Your task to perform on an android device: change your default location settings in chrome Image 0: 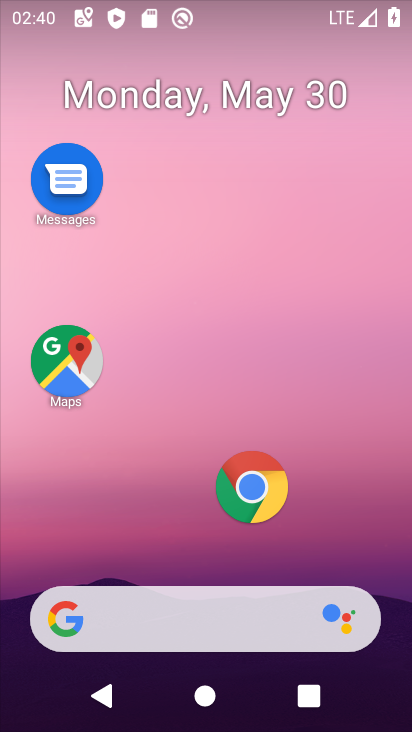
Step 0: drag from (227, 562) to (165, 724)
Your task to perform on an android device: change your default location settings in chrome Image 1: 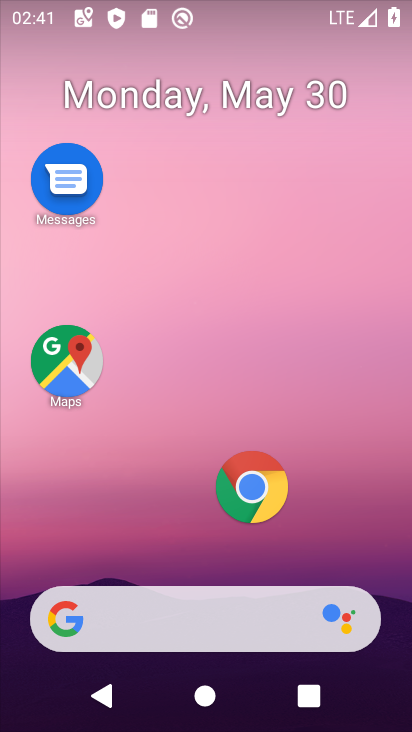
Step 1: drag from (312, 484) to (243, 13)
Your task to perform on an android device: change your default location settings in chrome Image 2: 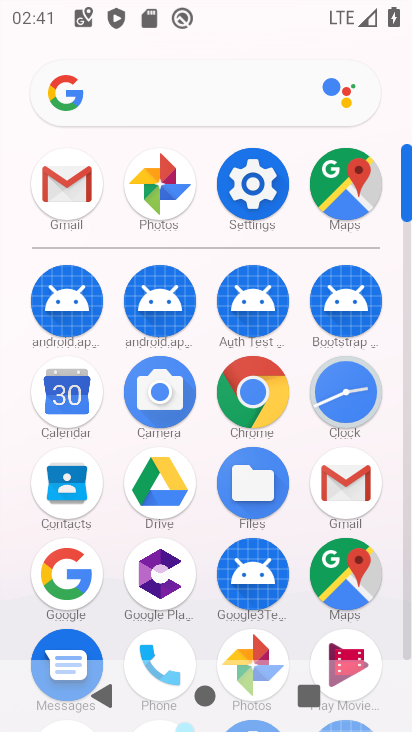
Step 2: click (261, 405)
Your task to perform on an android device: change your default location settings in chrome Image 3: 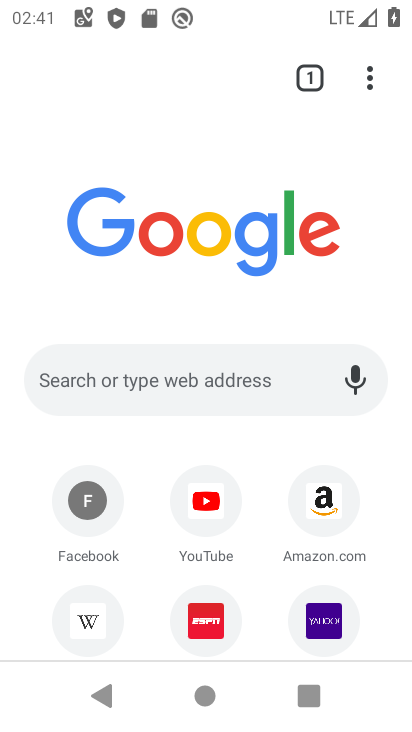
Step 3: click (370, 80)
Your task to perform on an android device: change your default location settings in chrome Image 4: 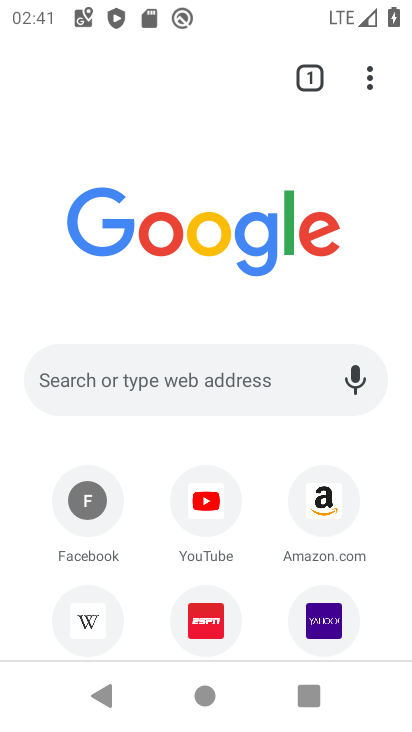
Step 4: click (368, 78)
Your task to perform on an android device: change your default location settings in chrome Image 5: 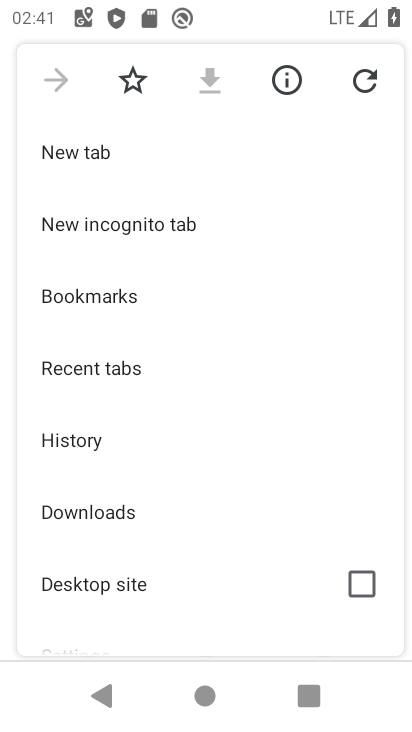
Step 5: drag from (189, 563) to (198, 231)
Your task to perform on an android device: change your default location settings in chrome Image 6: 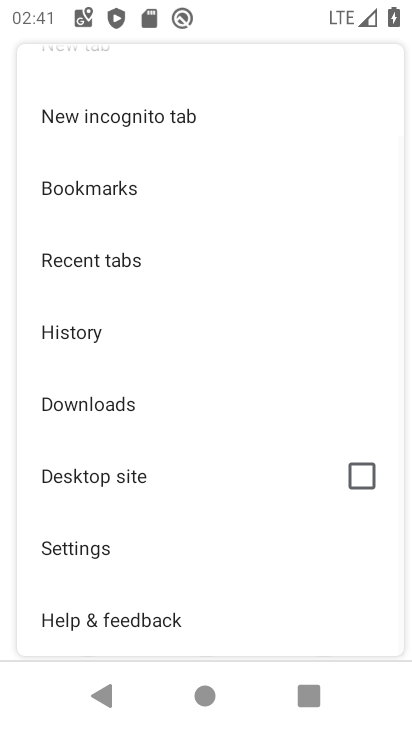
Step 6: click (86, 559)
Your task to perform on an android device: change your default location settings in chrome Image 7: 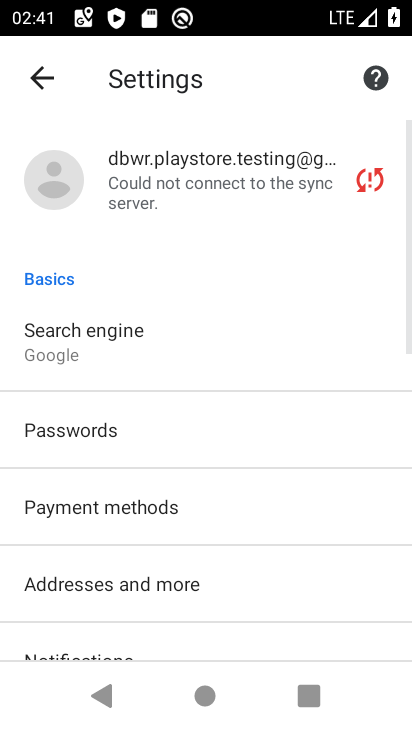
Step 7: drag from (141, 545) to (235, 182)
Your task to perform on an android device: change your default location settings in chrome Image 8: 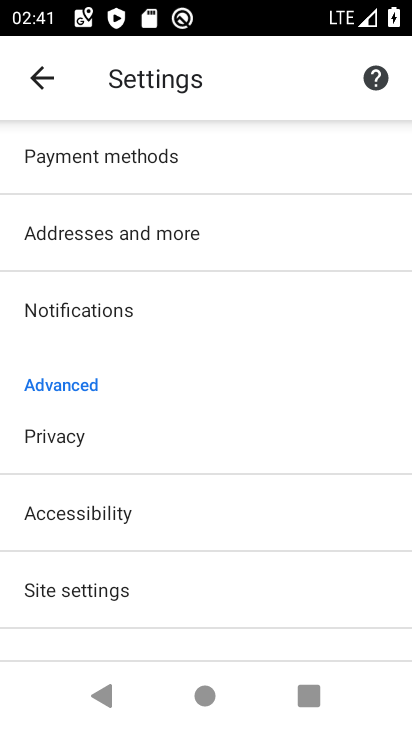
Step 8: click (112, 588)
Your task to perform on an android device: change your default location settings in chrome Image 9: 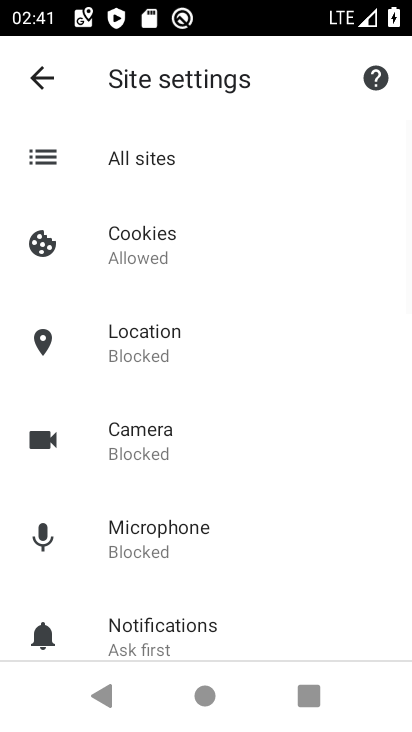
Step 9: click (151, 341)
Your task to perform on an android device: change your default location settings in chrome Image 10: 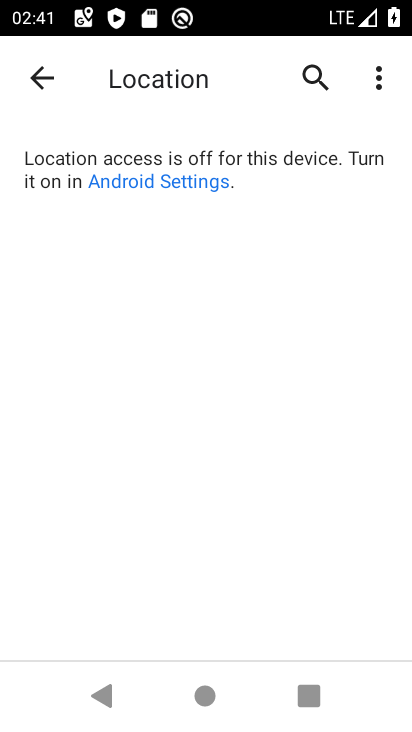
Step 10: click (230, 186)
Your task to perform on an android device: change your default location settings in chrome Image 11: 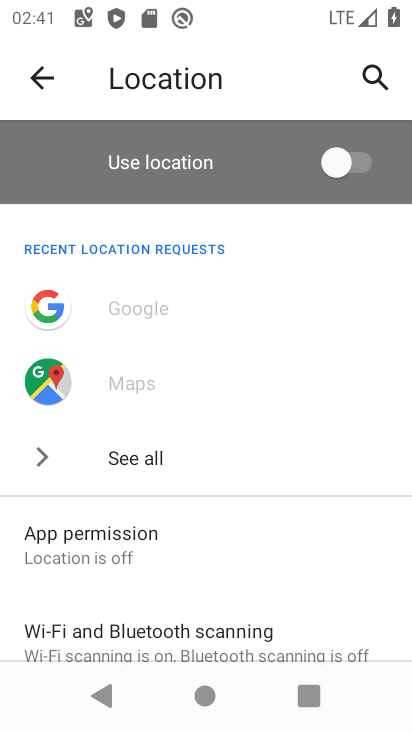
Step 11: click (353, 162)
Your task to perform on an android device: change your default location settings in chrome Image 12: 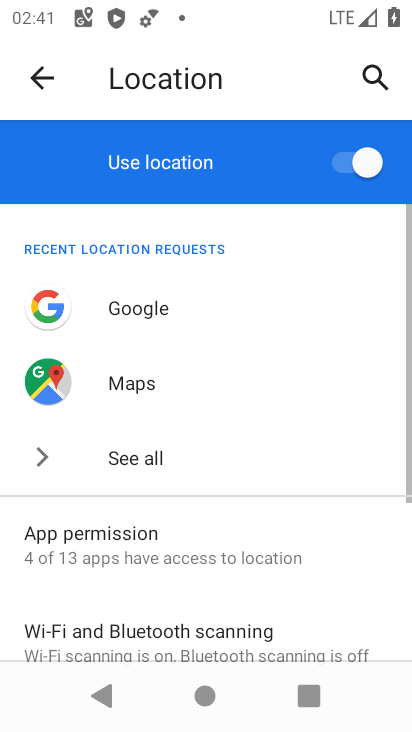
Step 12: task complete